Your task to perform on an android device: Open the phone app and click the voicemail tab. Image 0: 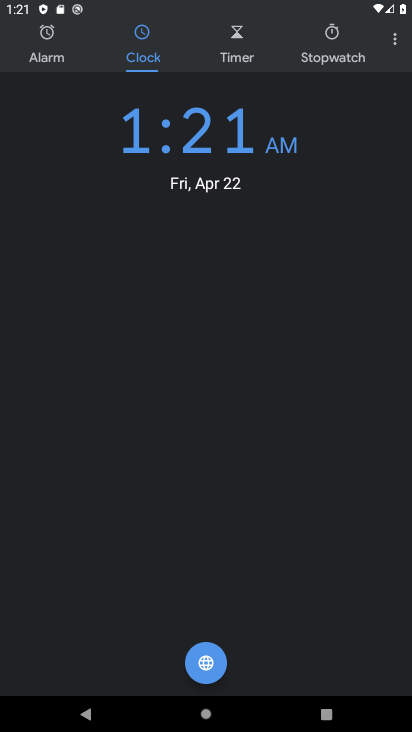
Step 0: press home button
Your task to perform on an android device: Open the phone app and click the voicemail tab. Image 1: 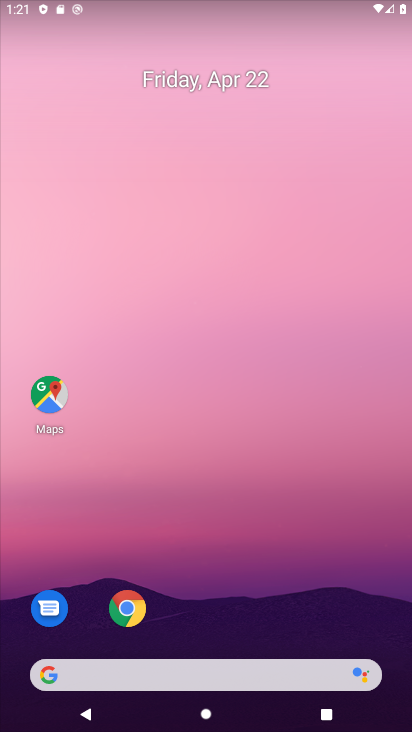
Step 1: drag from (246, 686) to (264, 119)
Your task to perform on an android device: Open the phone app and click the voicemail tab. Image 2: 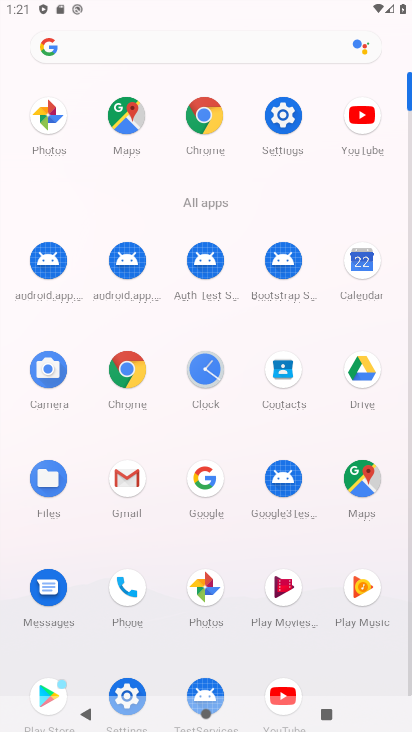
Step 2: click (118, 566)
Your task to perform on an android device: Open the phone app and click the voicemail tab. Image 3: 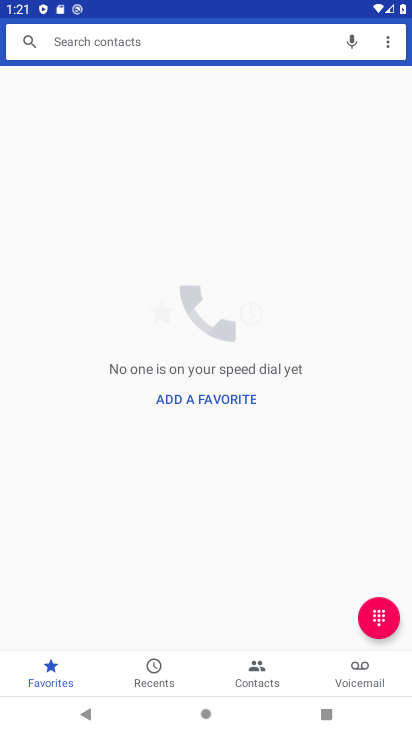
Step 3: click (343, 674)
Your task to perform on an android device: Open the phone app and click the voicemail tab. Image 4: 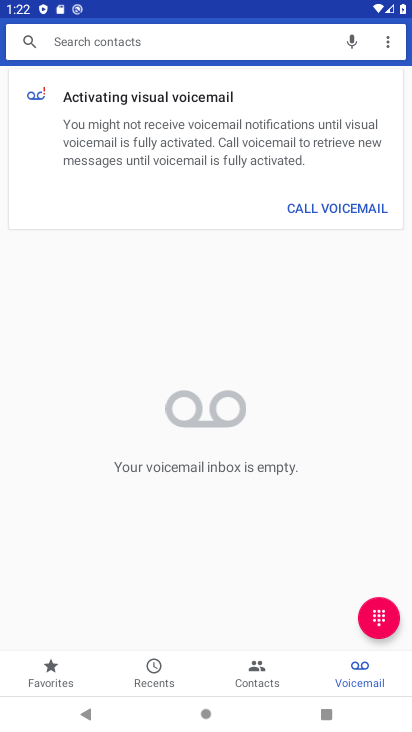
Step 4: task complete